Your task to perform on an android device: Open sound settings Image 0: 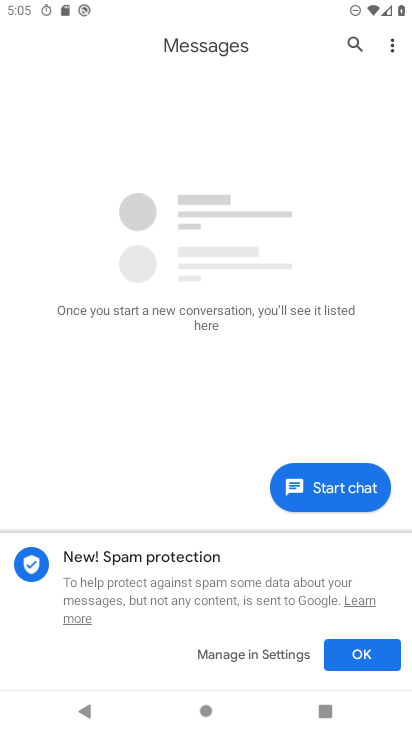
Step 0: drag from (232, 581) to (230, 245)
Your task to perform on an android device: Open sound settings Image 1: 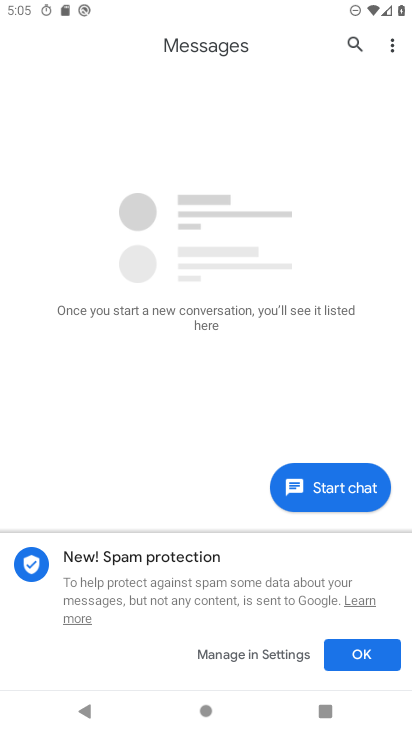
Step 1: press home button
Your task to perform on an android device: Open sound settings Image 2: 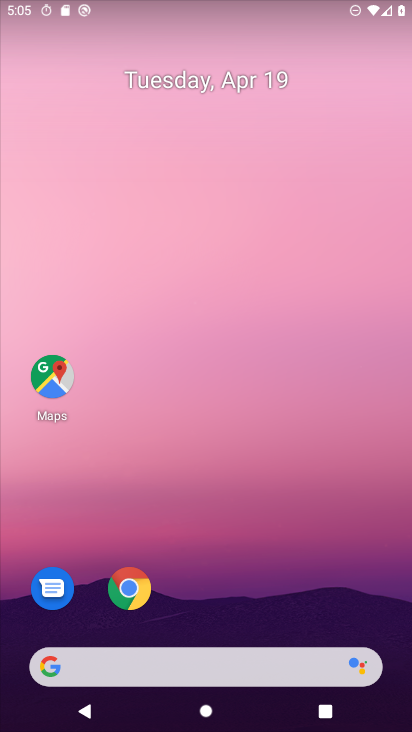
Step 2: drag from (209, 563) to (136, 75)
Your task to perform on an android device: Open sound settings Image 3: 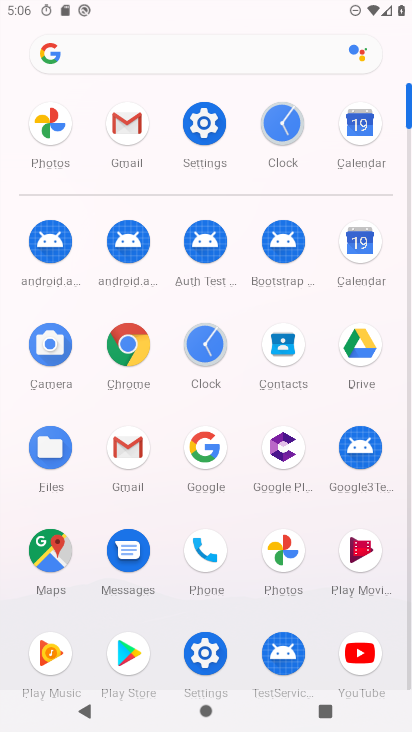
Step 3: click (204, 135)
Your task to perform on an android device: Open sound settings Image 4: 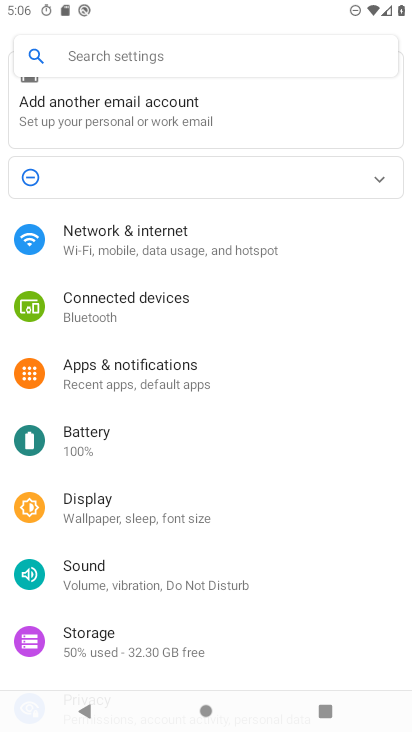
Step 4: click (132, 576)
Your task to perform on an android device: Open sound settings Image 5: 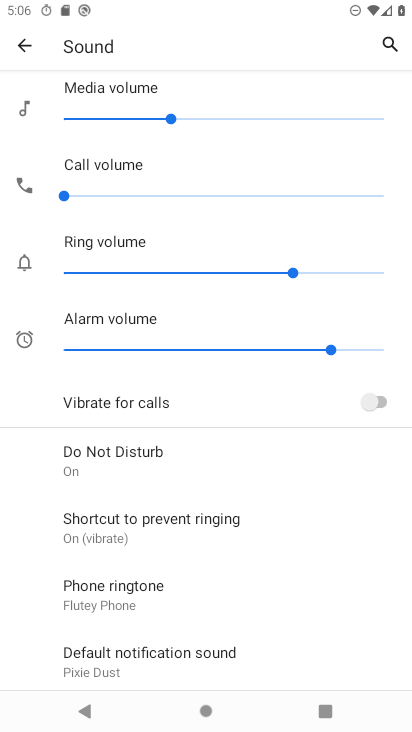
Step 5: task complete